Your task to perform on an android device: turn on the 12-hour format for clock Image 0: 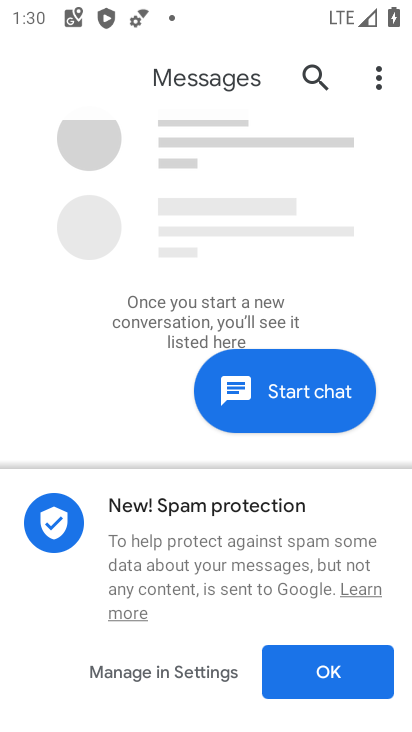
Step 0: press home button
Your task to perform on an android device: turn on the 12-hour format for clock Image 1: 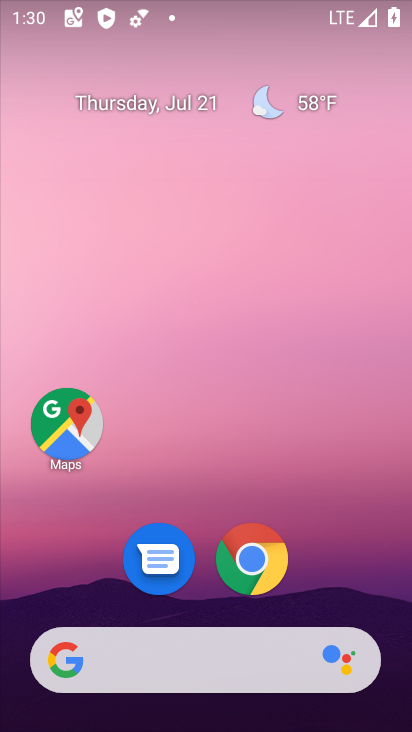
Step 1: drag from (385, 562) to (407, 165)
Your task to perform on an android device: turn on the 12-hour format for clock Image 2: 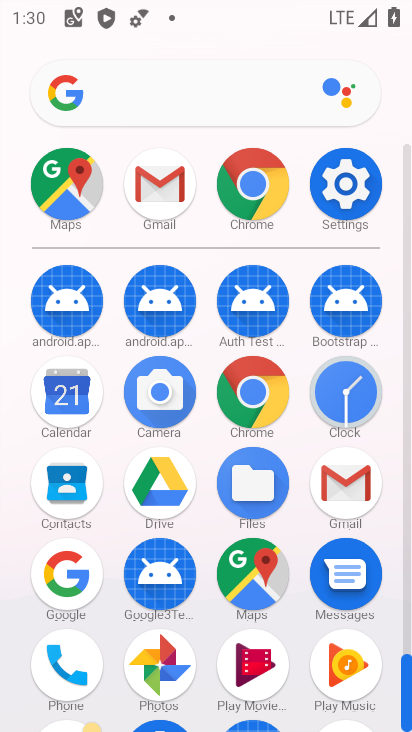
Step 2: click (354, 383)
Your task to perform on an android device: turn on the 12-hour format for clock Image 3: 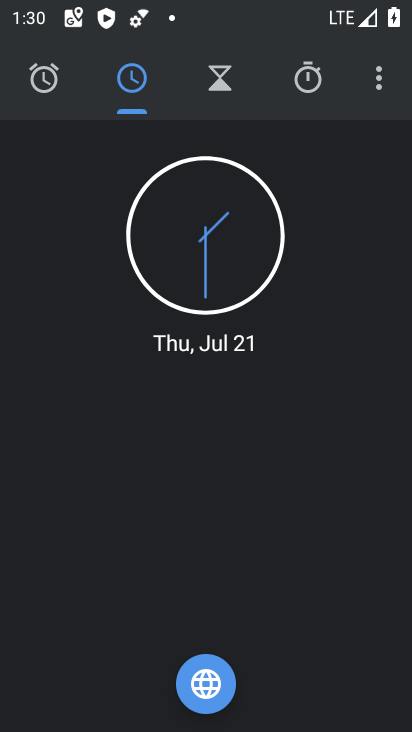
Step 3: click (377, 95)
Your task to perform on an android device: turn on the 12-hour format for clock Image 4: 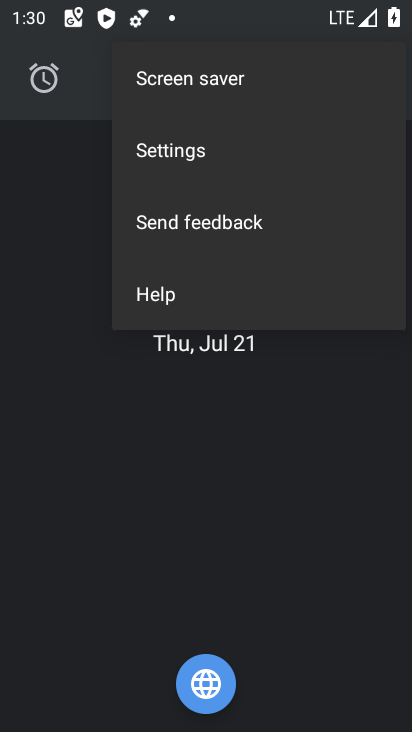
Step 4: click (256, 162)
Your task to perform on an android device: turn on the 12-hour format for clock Image 5: 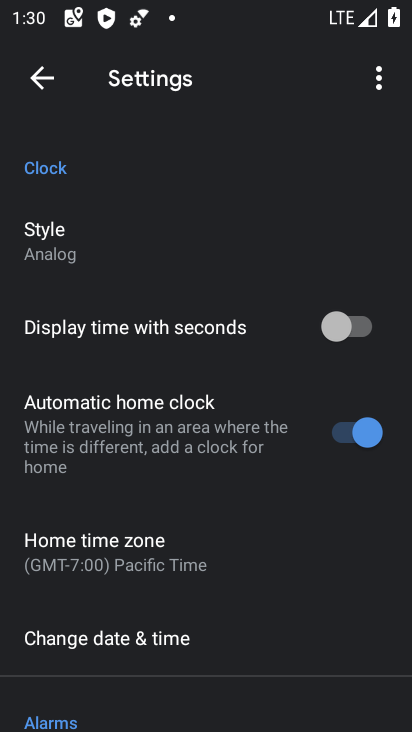
Step 5: click (195, 634)
Your task to perform on an android device: turn on the 12-hour format for clock Image 6: 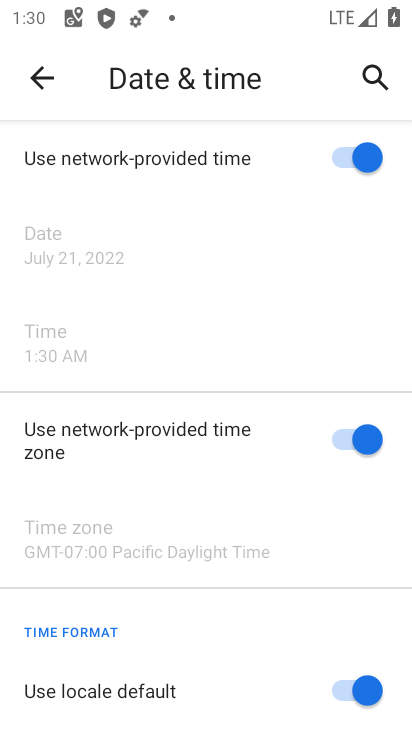
Step 6: task complete